Your task to perform on an android device: Open Google Chrome Image 0: 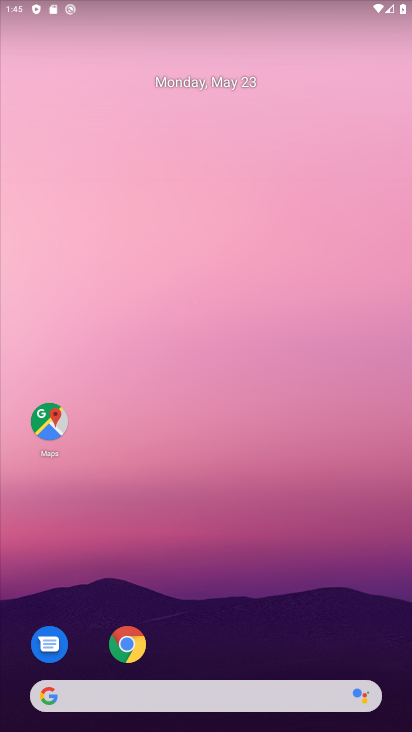
Step 0: drag from (255, 518) to (176, 28)
Your task to perform on an android device: Open Google Chrome Image 1: 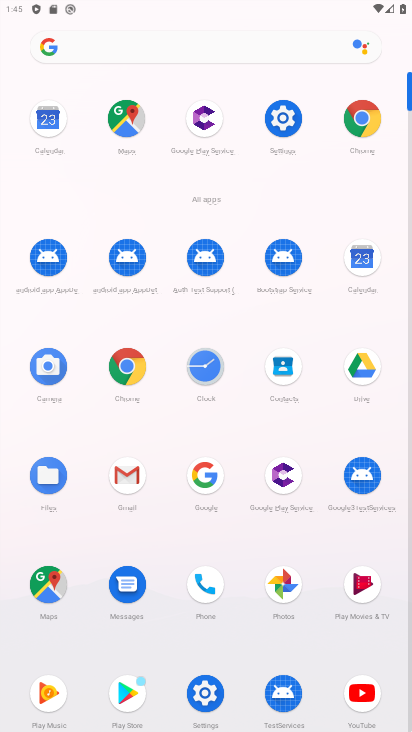
Step 1: click (371, 103)
Your task to perform on an android device: Open Google Chrome Image 2: 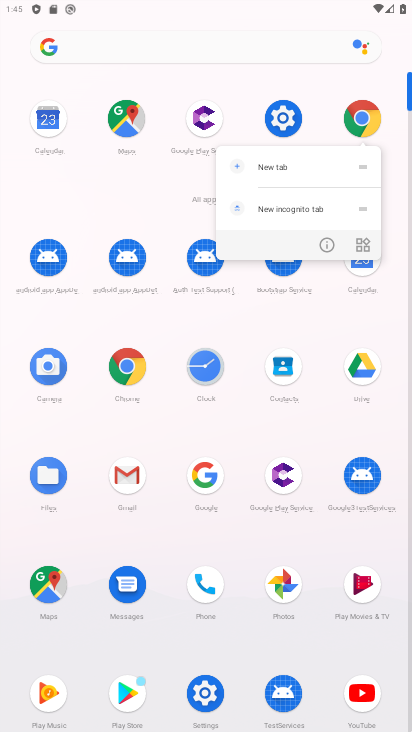
Step 2: click (370, 127)
Your task to perform on an android device: Open Google Chrome Image 3: 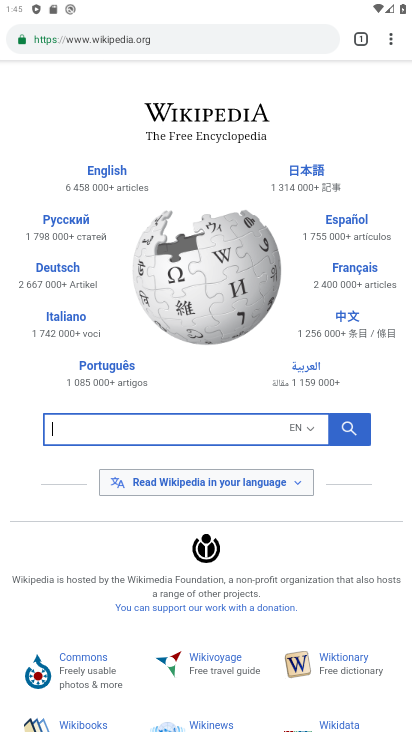
Step 3: task complete